Your task to perform on an android device: set an alarm Image 0: 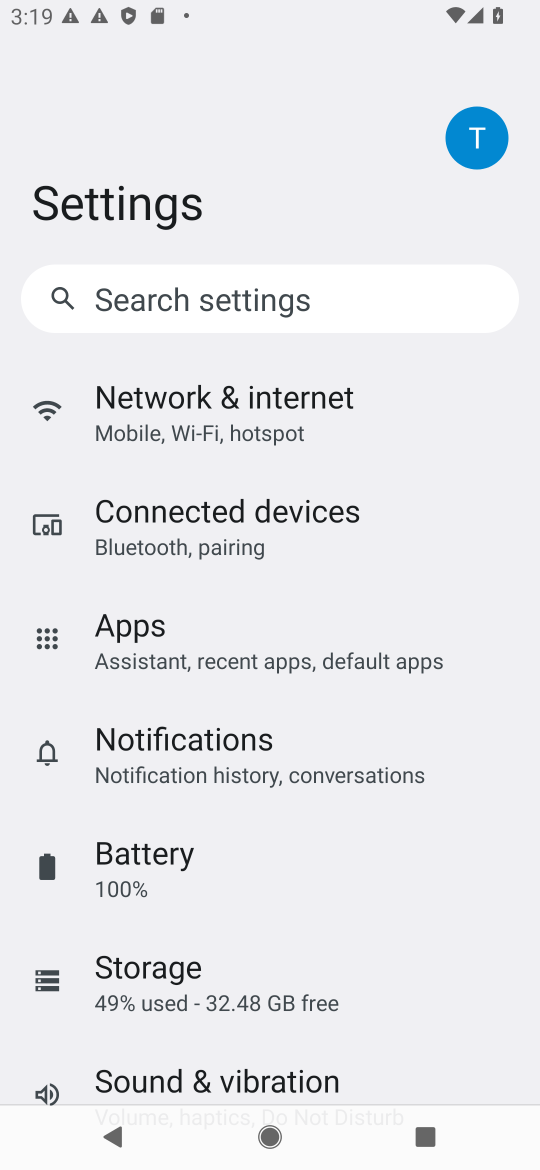
Step 0: press home button
Your task to perform on an android device: set an alarm Image 1: 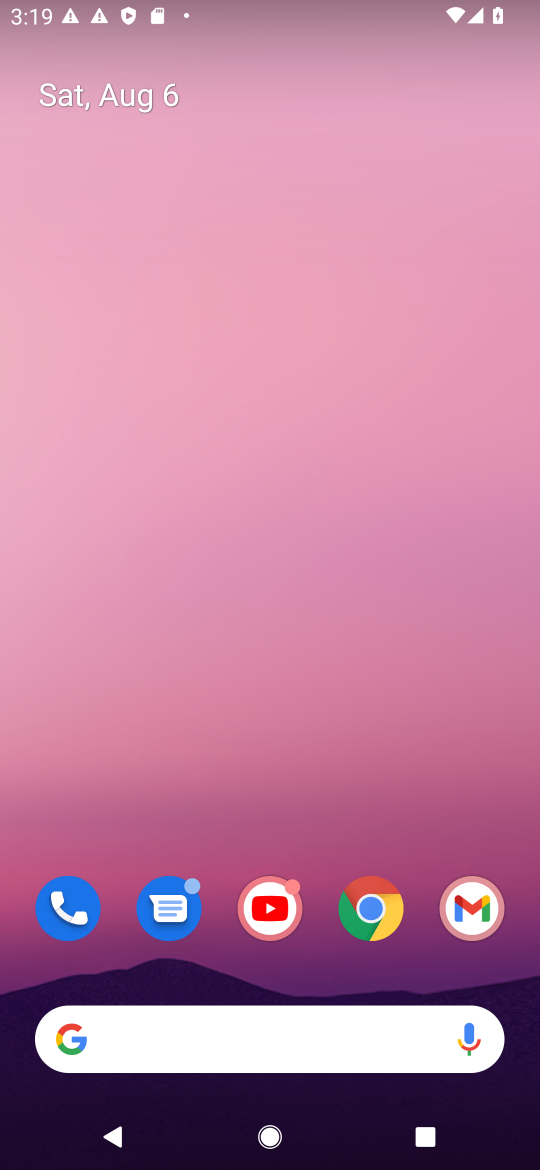
Step 1: drag from (218, 979) to (199, 4)
Your task to perform on an android device: set an alarm Image 2: 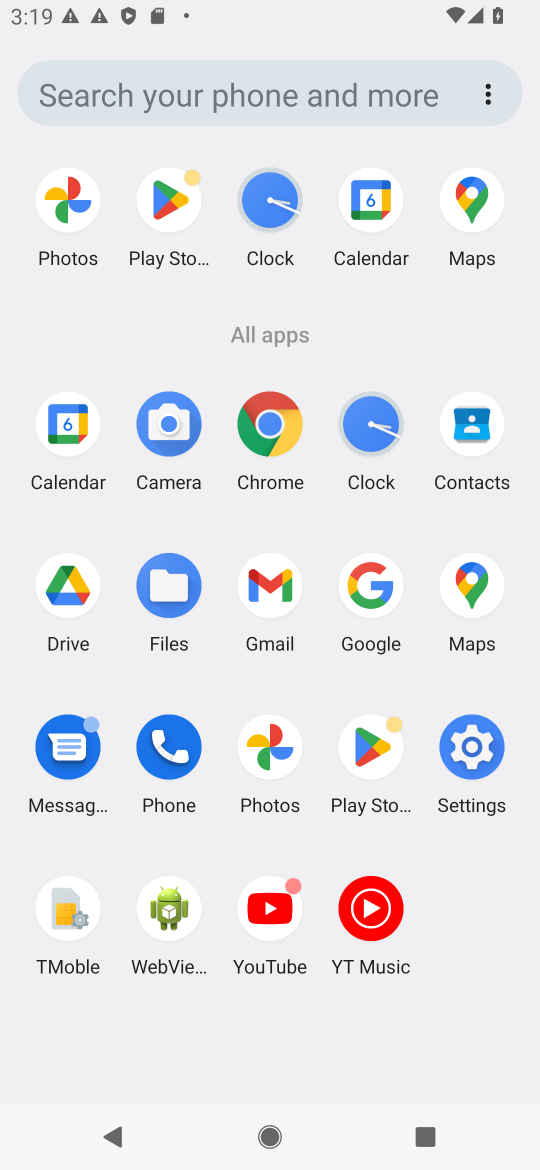
Step 2: click (373, 438)
Your task to perform on an android device: set an alarm Image 3: 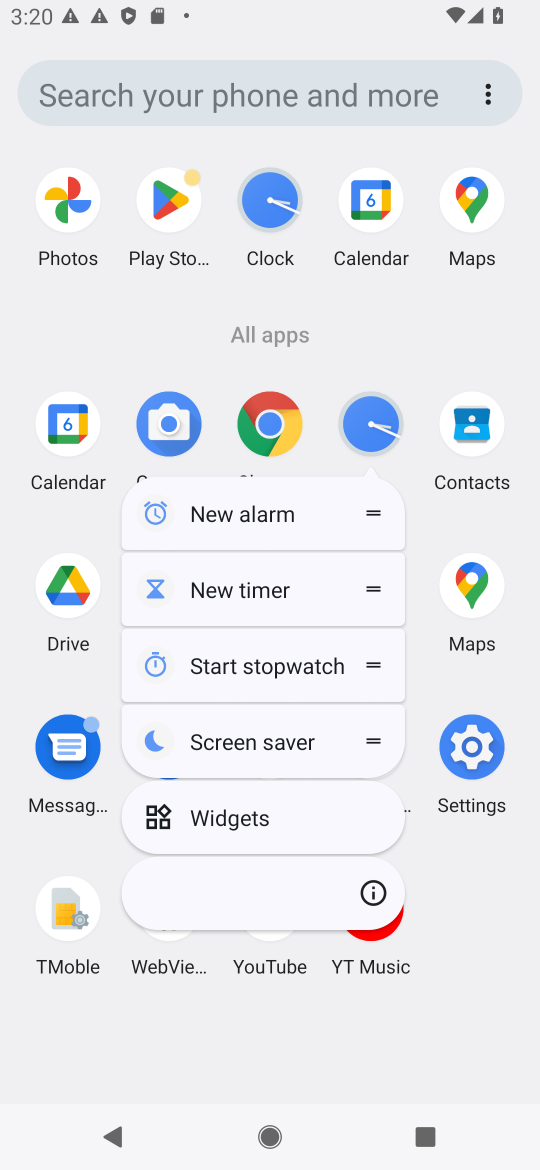
Step 3: click (372, 440)
Your task to perform on an android device: set an alarm Image 4: 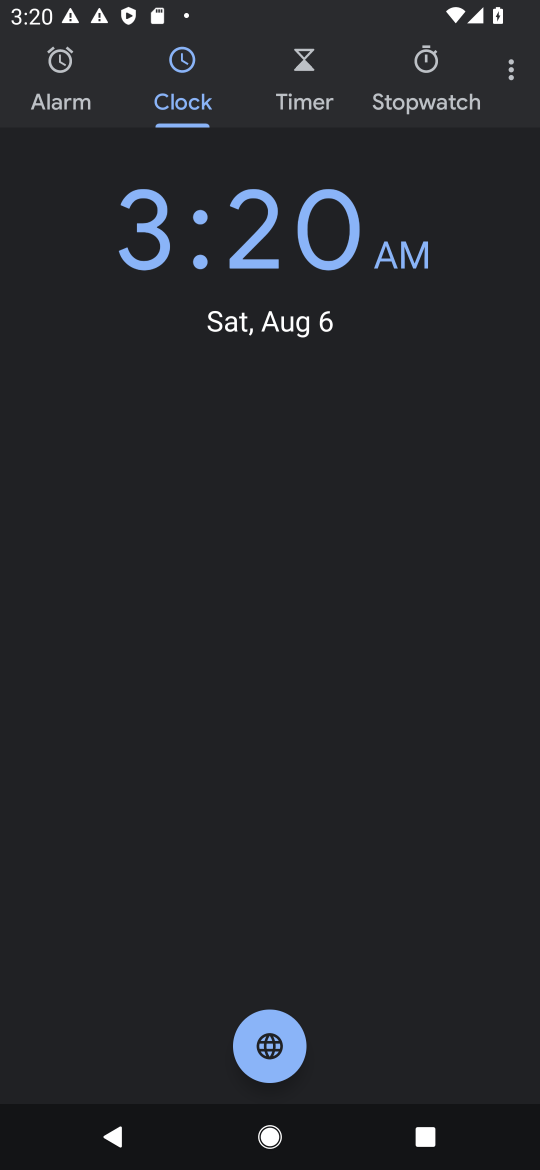
Step 4: click (49, 108)
Your task to perform on an android device: set an alarm Image 5: 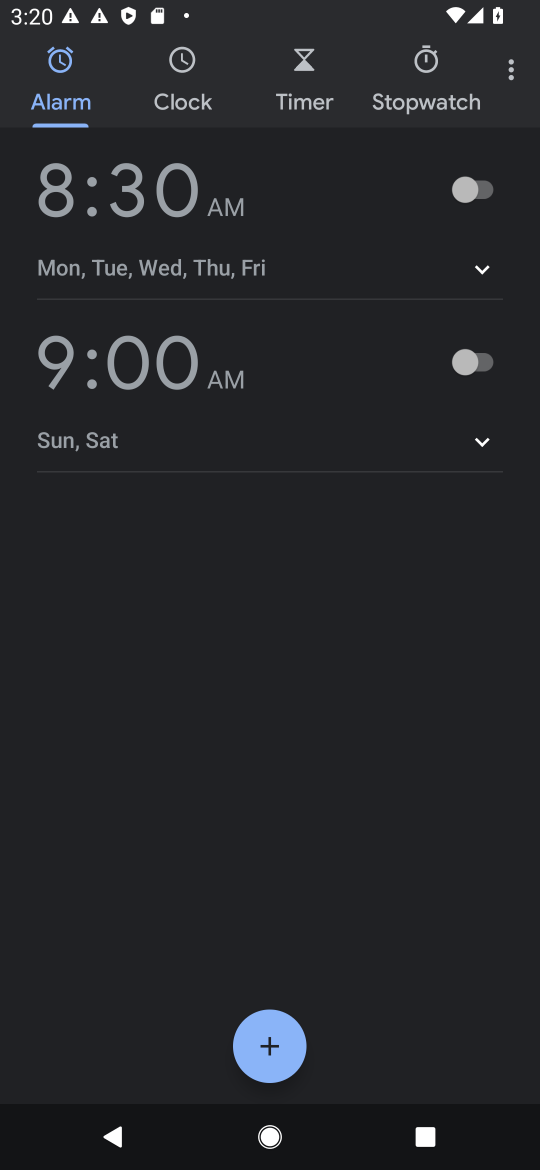
Step 5: click (488, 276)
Your task to perform on an android device: set an alarm Image 6: 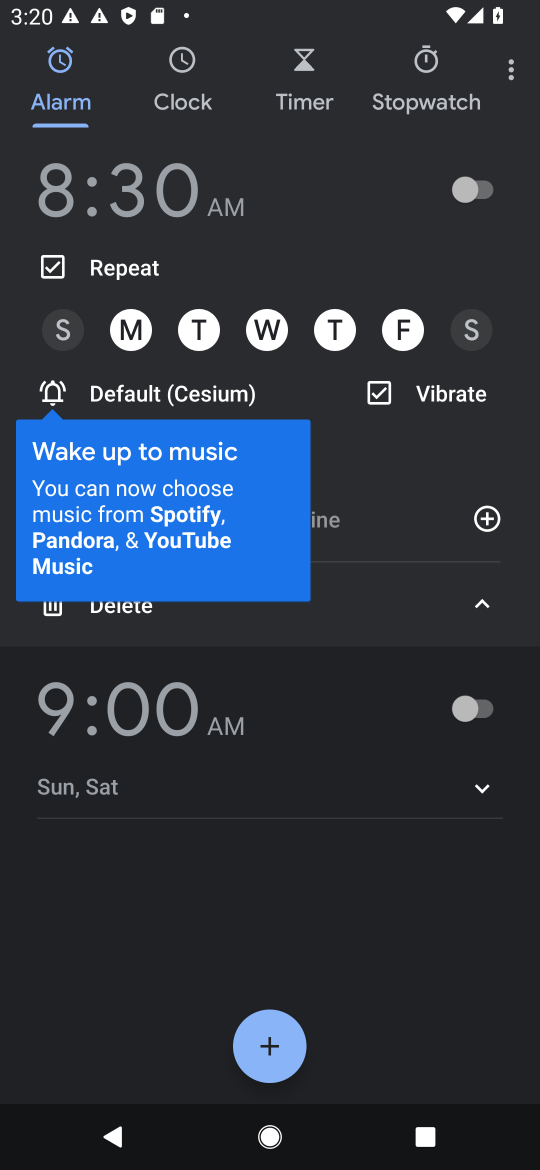
Step 6: click (263, 330)
Your task to perform on an android device: set an alarm Image 7: 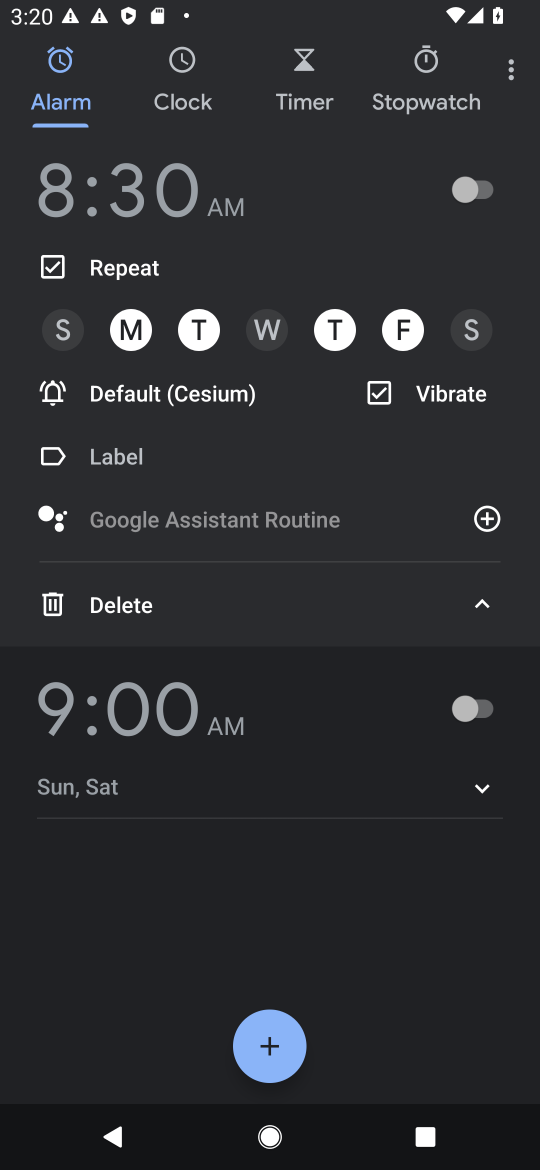
Step 7: click (187, 328)
Your task to perform on an android device: set an alarm Image 8: 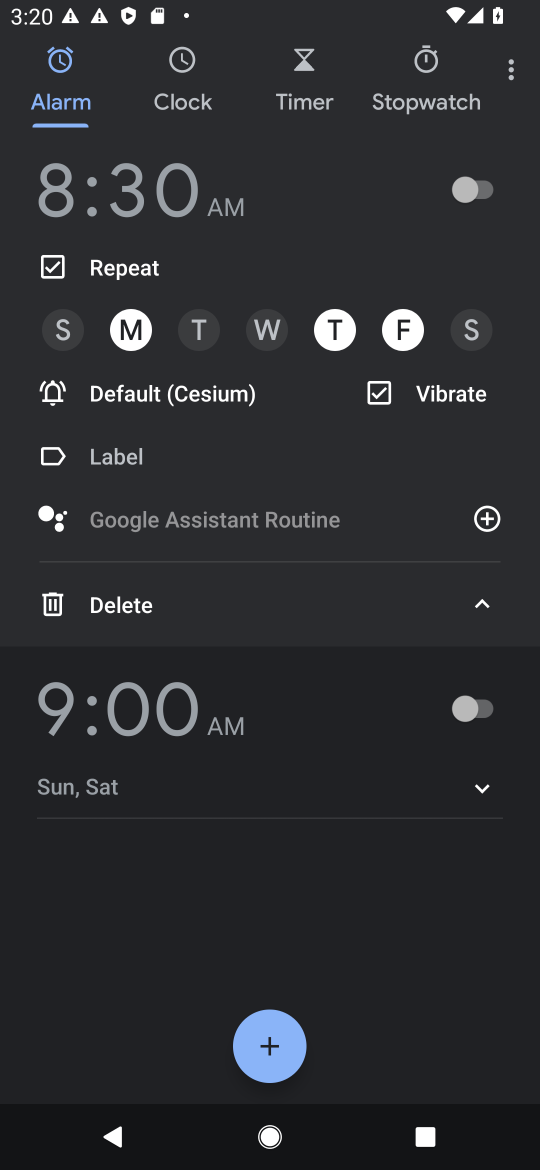
Step 8: click (63, 336)
Your task to perform on an android device: set an alarm Image 9: 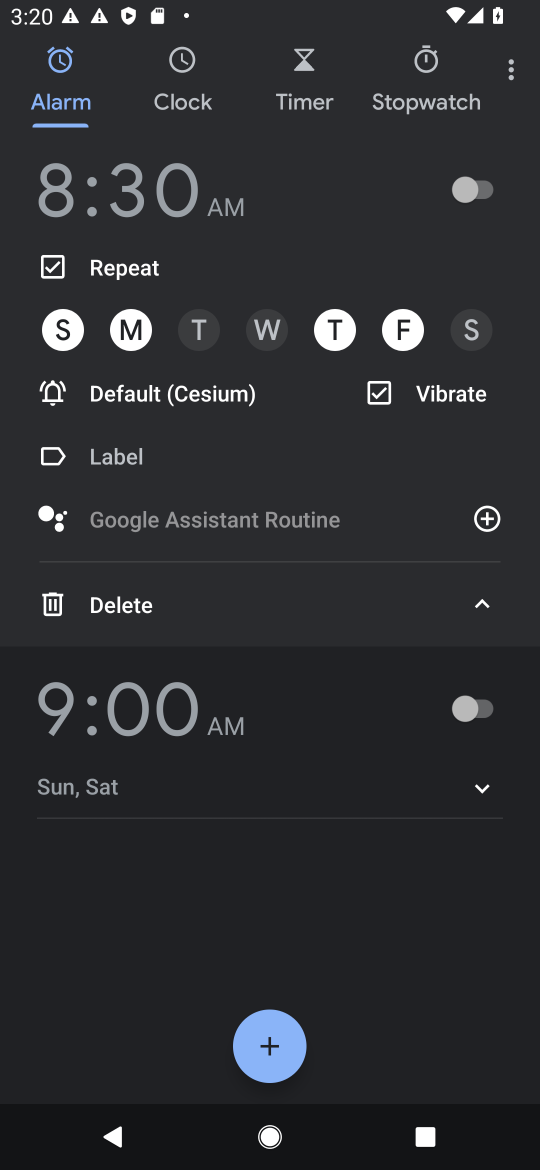
Step 9: click (493, 193)
Your task to perform on an android device: set an alarm Image 10: 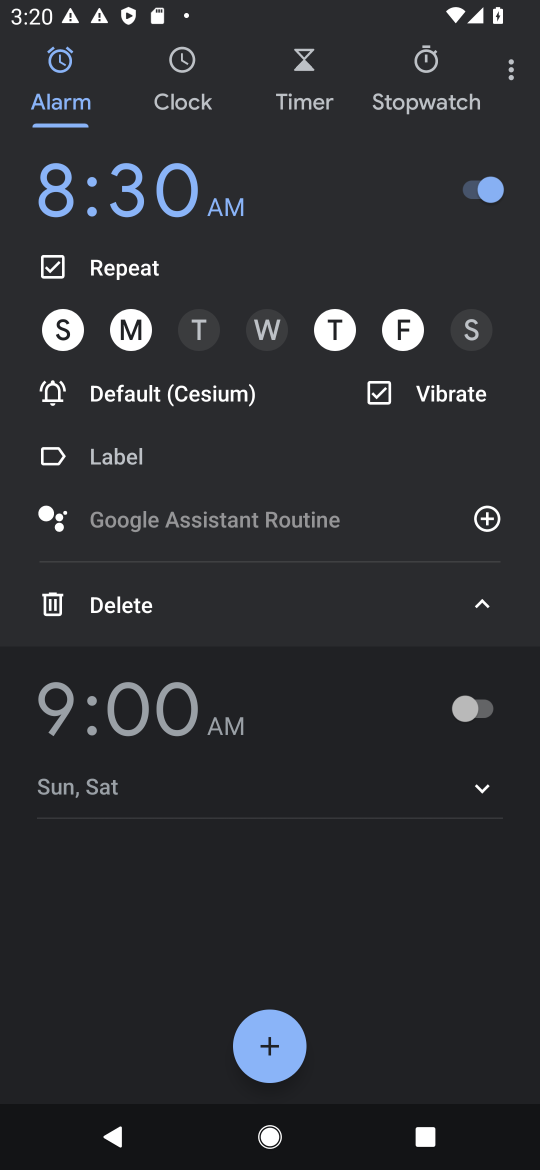
Step 10: task complete